Your task to perform on an android device: change keyboard looks Image 0: 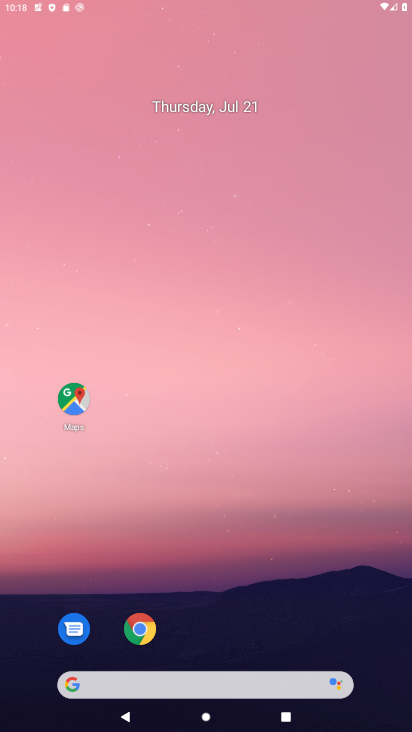
Step 0: click (143, 626)
Your task to perform on an android device: change keyboard looks Image 1: 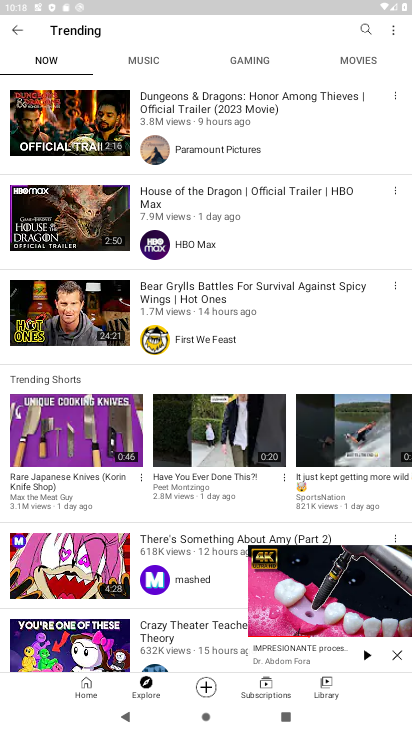
Step 1: press home button
Your task to perform on an android device: change keyboard looks Image 2: 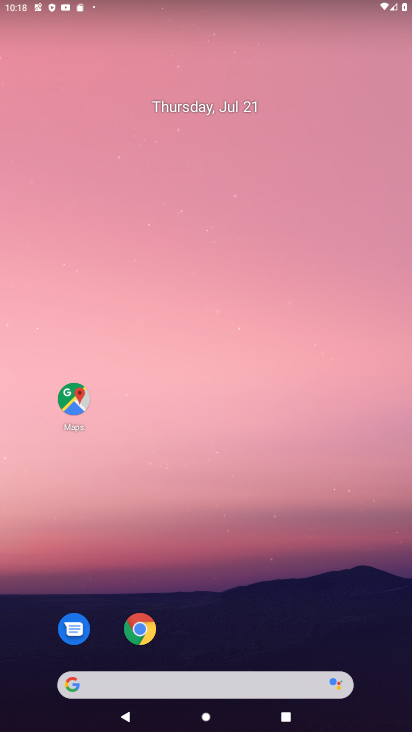
Step 2: drag from (205, 624) to (257, 90)
Your task to perform on an android device: change keyboard looks Image 3: 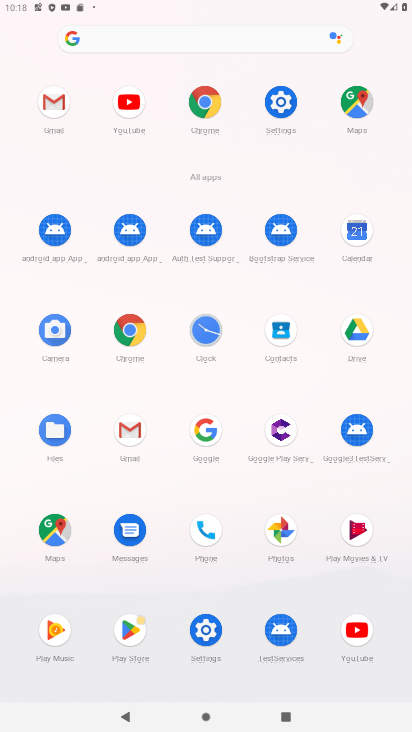
Step 3: click (277, 111)
Your task to perform on an android device: change keyboard looks Image 4: 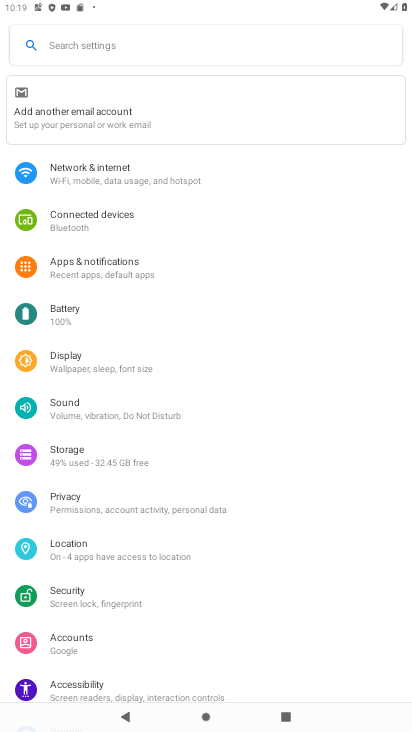
Step 4: drag from (90, 666) to (182, 178)
Your task to perform on an android device: change keyboard looks Image 5: 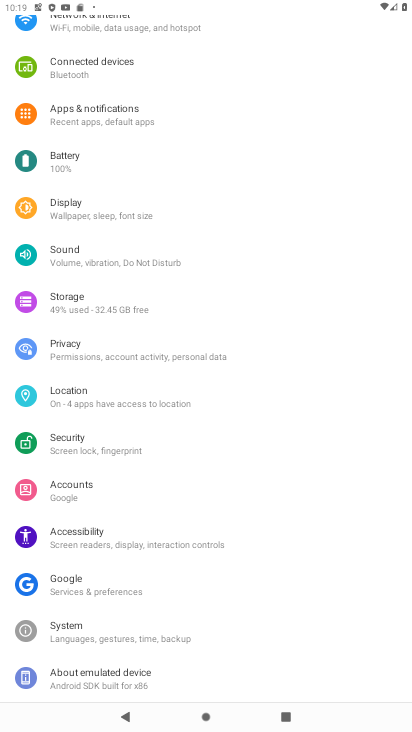
Step 5: click (84, 634)
Your task to perform on an android device: change keyboard looks Image 6: 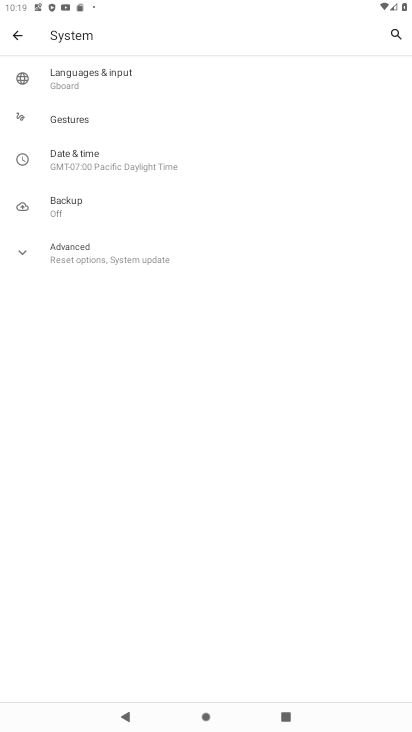
Step 6: click (83, 70)
Your task to perform on an android device: change keyboard looks Image 7: 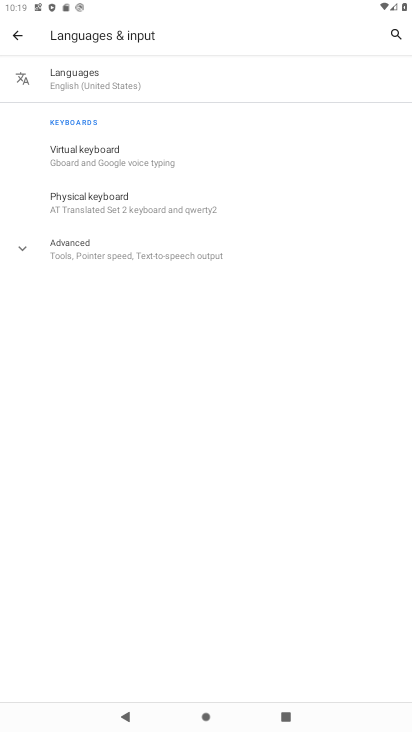
Step 7: click (140, 161)
Your task to perform on an android device: change keyboard looks Image 8: 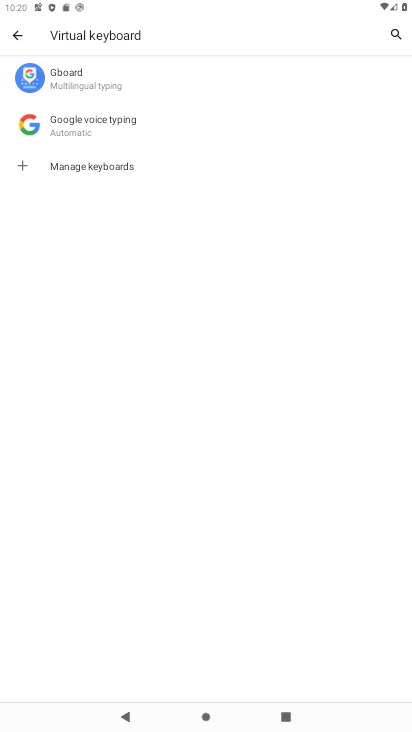
Step 8: click (123, 79)
Your task to perform on an android device: change keyboard looks Image 9: 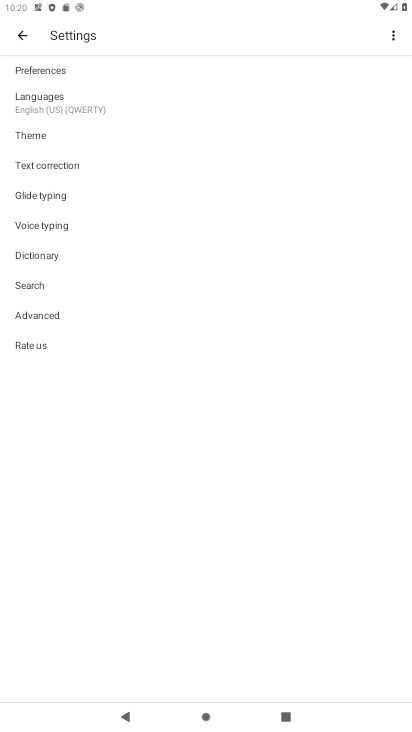
Step 9: click (30, 150)
Your task to perform on an android device: change keyboard looks Image 10: 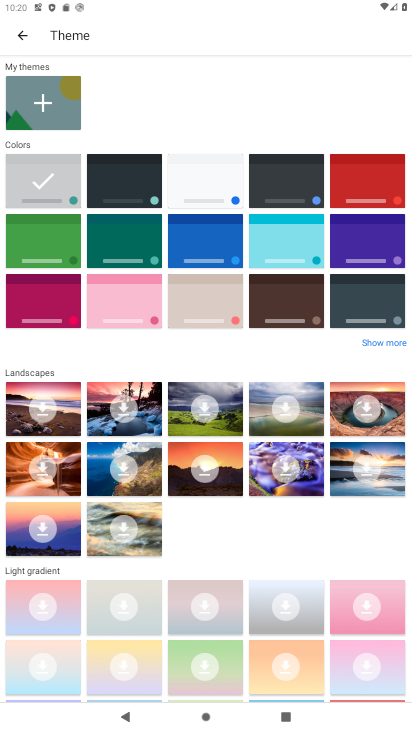
Step 10: click (125, 535)
Your task to perform on an android device: change keyboard looks Image 11: 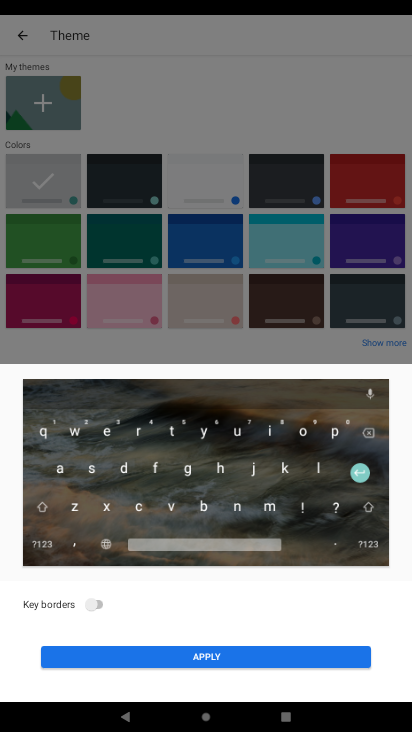
Step 11: click (252, 654)
Your task to perform on an android device: change keyboard looks Image 12: 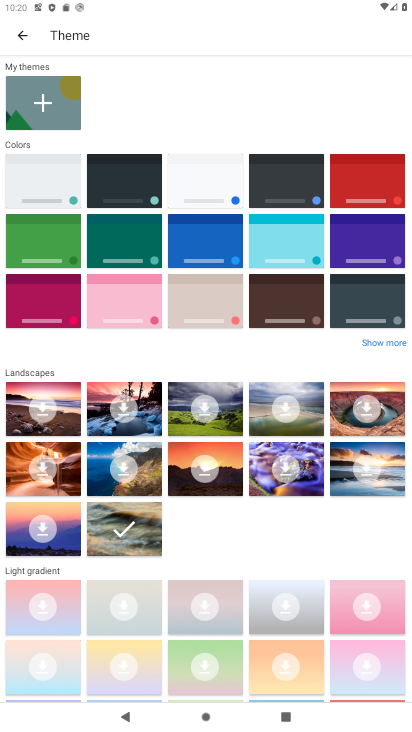
Step 12: task complete